Your task to perform on an android device: turn on improve location accuracy Image 0: 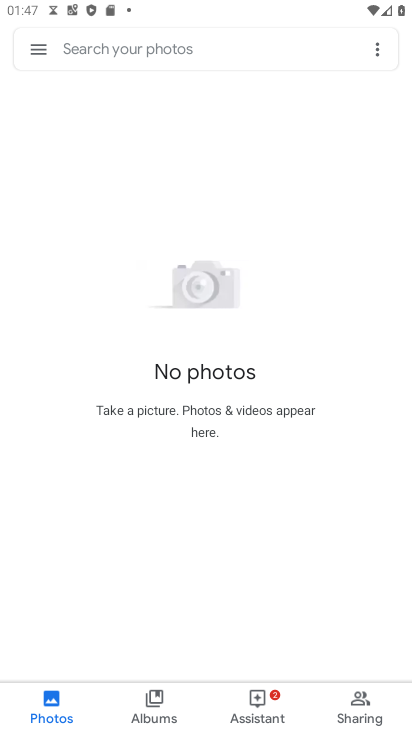
Step 0: press home button
Your task to perform on an android device: turn on improve location accuracy Image 1: 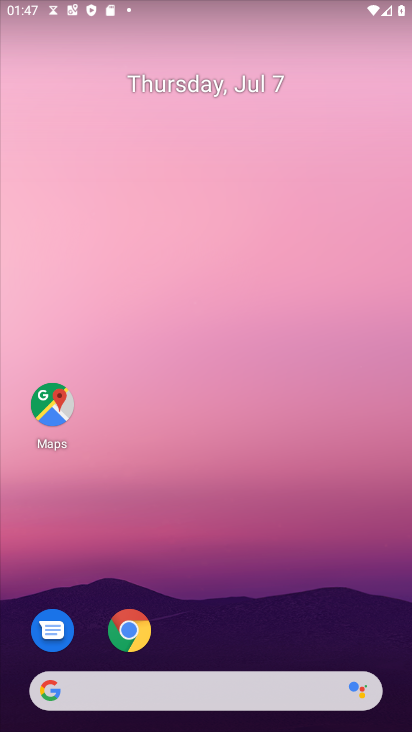
Step 1: drag from (262, 617) to (212, 183)
Your task to perform on an android device: turn on improve location accuracy Image 2: 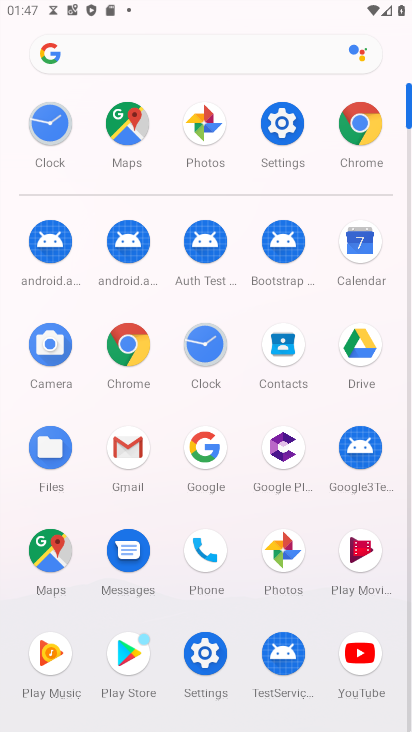
Step 2: click (278, 125)
Your task to perform on an android device: turn on improve location accuracy Image 3: 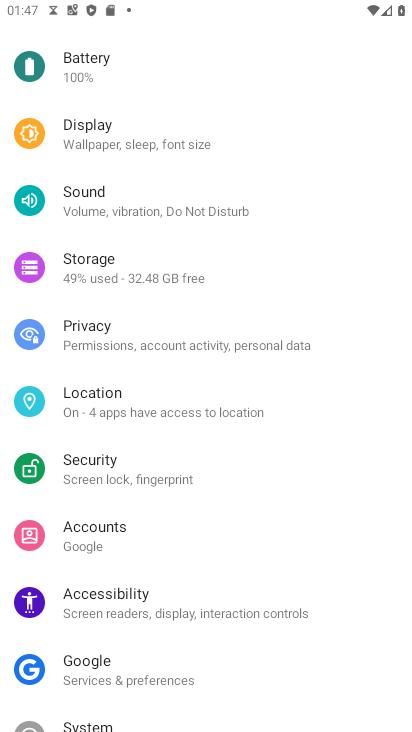
Step 3: click (194, 404)
Your task to perform on an android device: turn on improve location accuracy Image 4: 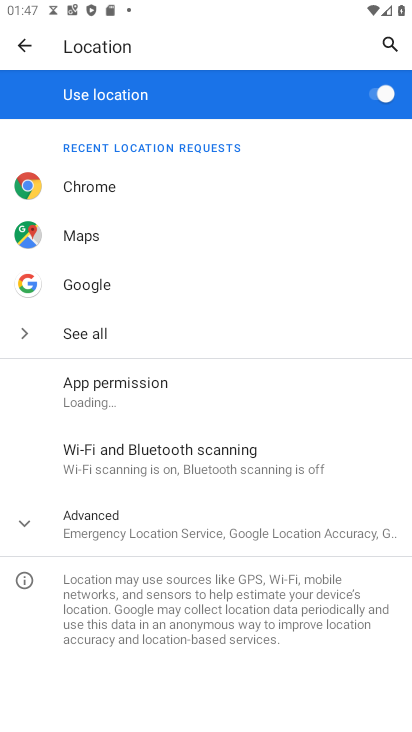
Step 4: click (197, 524)
Your task to perform on an android device: turn on improve location accuracy Image 5: 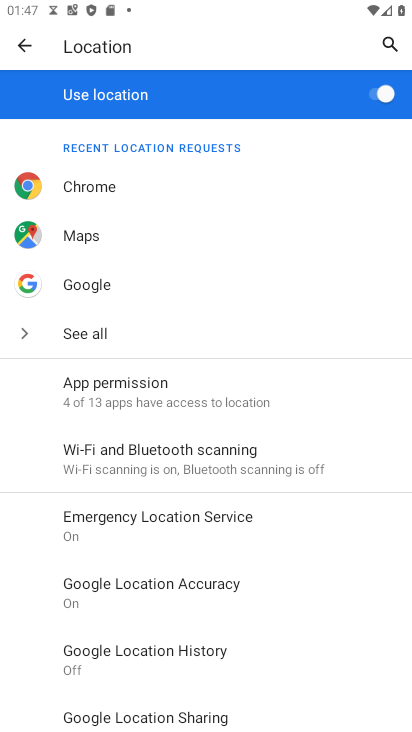
Step 5: click (221, 585)
Your task to perform on an android device: turn on improve location accuracy Image 6: 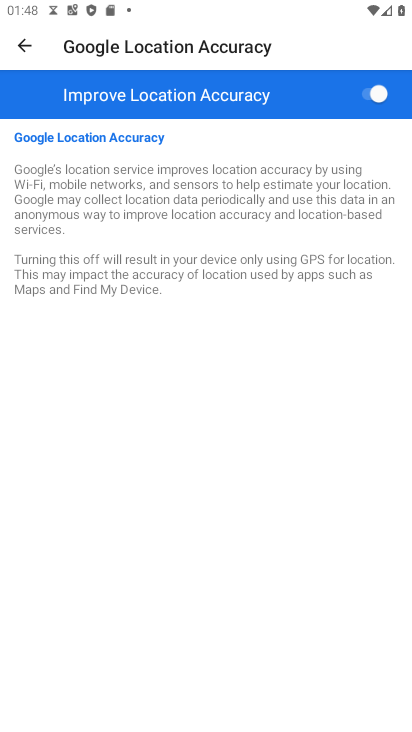
Step 6: task complete